Your task to perform on an android device: Open Google Chrome Image 0: 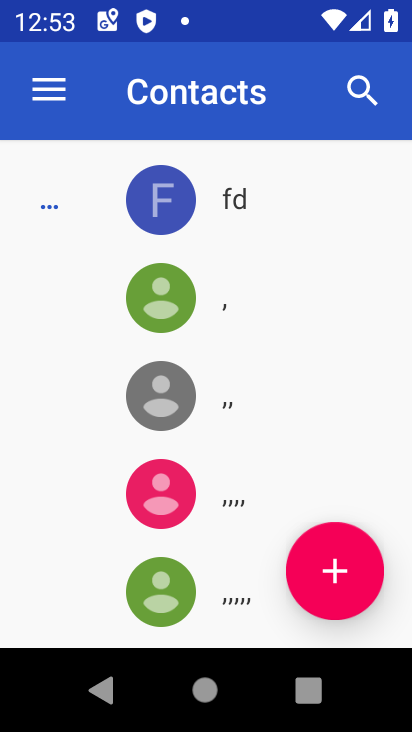
Step 0: press home button
Your task to perform on an android device: Open Google Chrome Image 1: 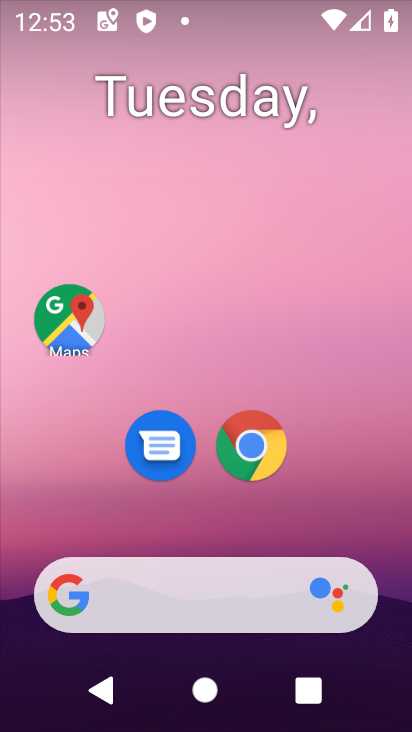
Step 1: click (256, 445)
Your task to perform on an android device: Open Google Chrome Image 2: 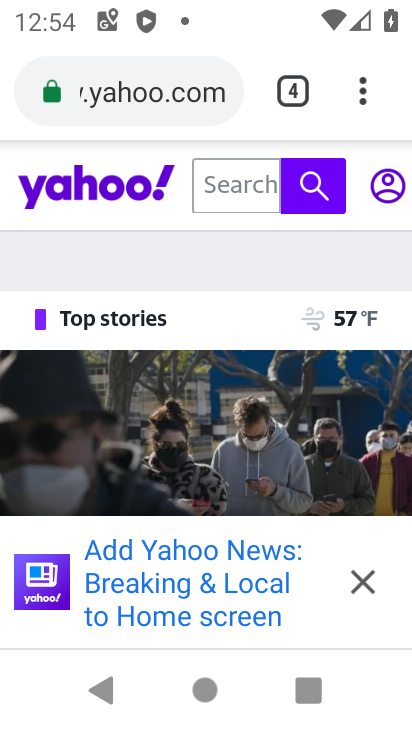
Step 2: press home button
Your task to perform on an android device: Open Google Chrome Image 3: 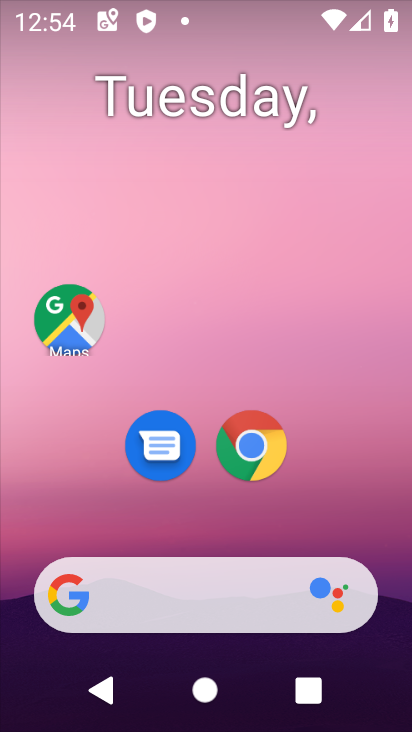
Step 3: drag from (335, 467) to (347, 59)
Your task to perform on an android device: Open Google Chrome Image 4: 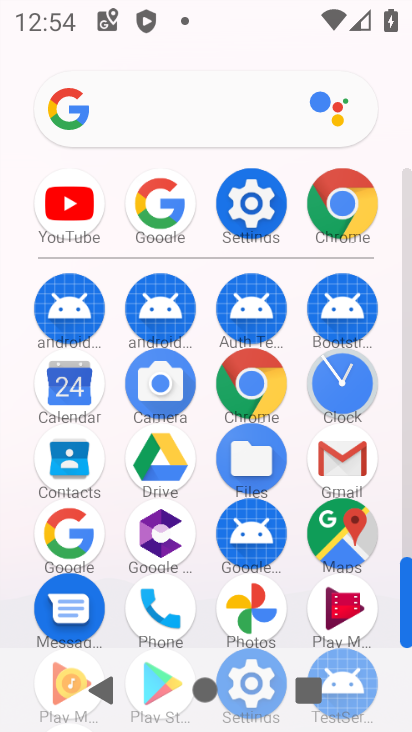
Step 4: click (78, 543)
Your task to perform on an android device: Open Google Chrome Image 5: 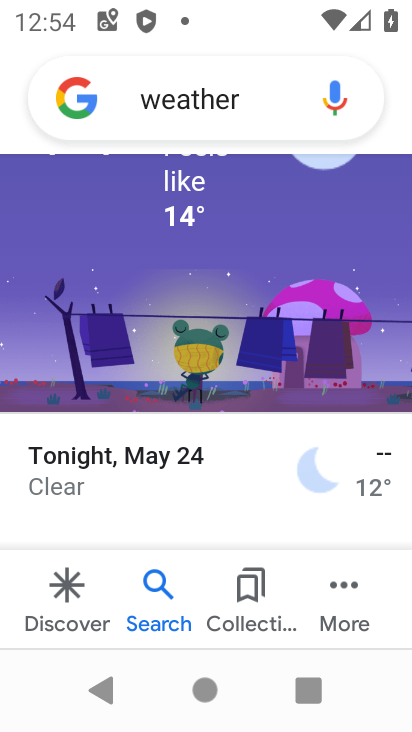
Step 5: task complete